Your task to perform on an android device: install app "Facebook Lite" Image 0: 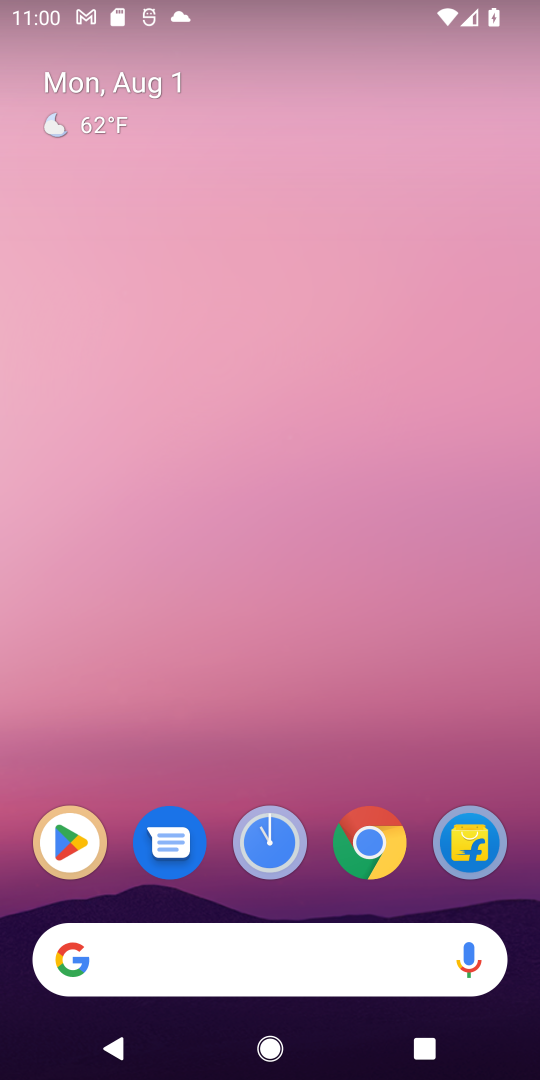
Step 0: click (64, 850)
Your task to perform on an android device: install app "Facebook Lite" Image 1: 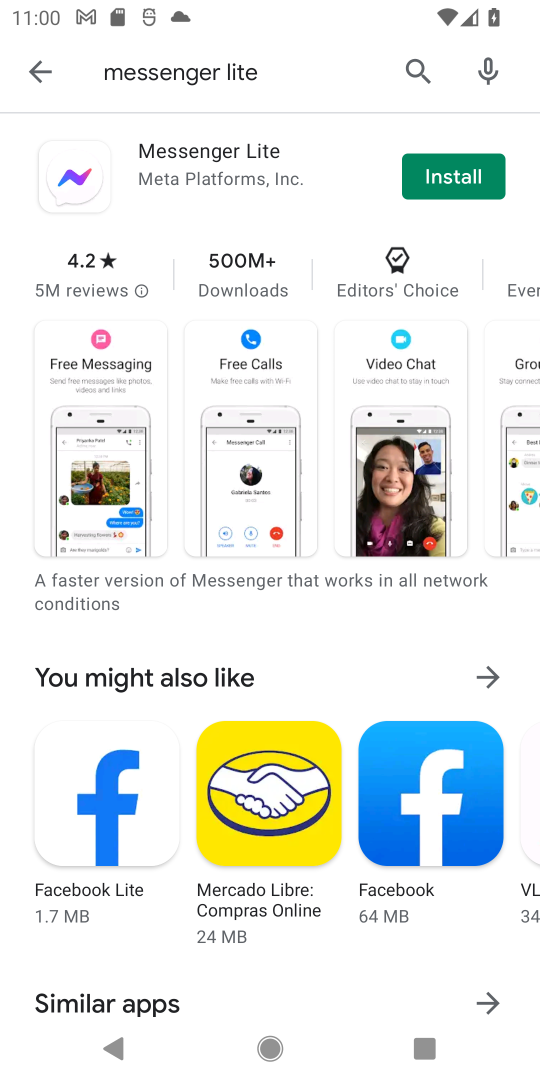
Step 1: click (415, 68)
Your task to perform on an android device: install app "Facebook Lite" Image 2: 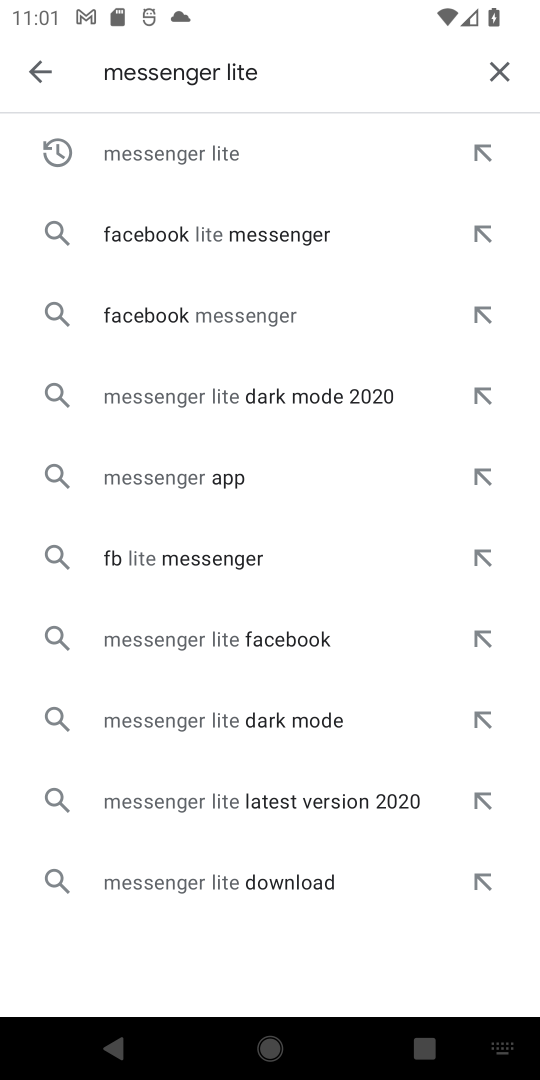
Step 2: click (234, 147)
Your task to perform on an android device: install app "Facebook Lite" Image 3: 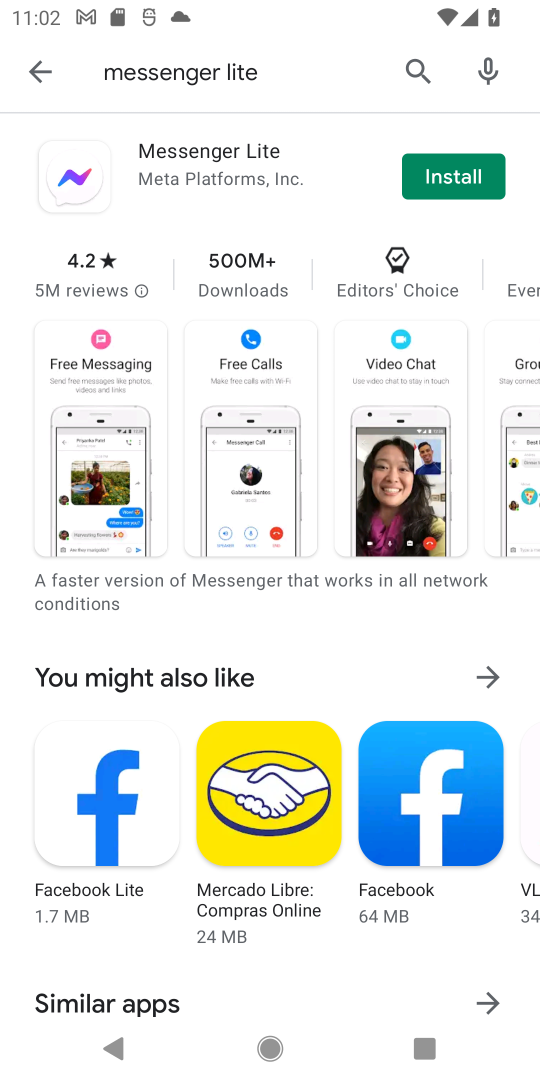
Step 3: click (452, 180)
Your task to perform on an android device: install app "Facebook Lite" Image 4: 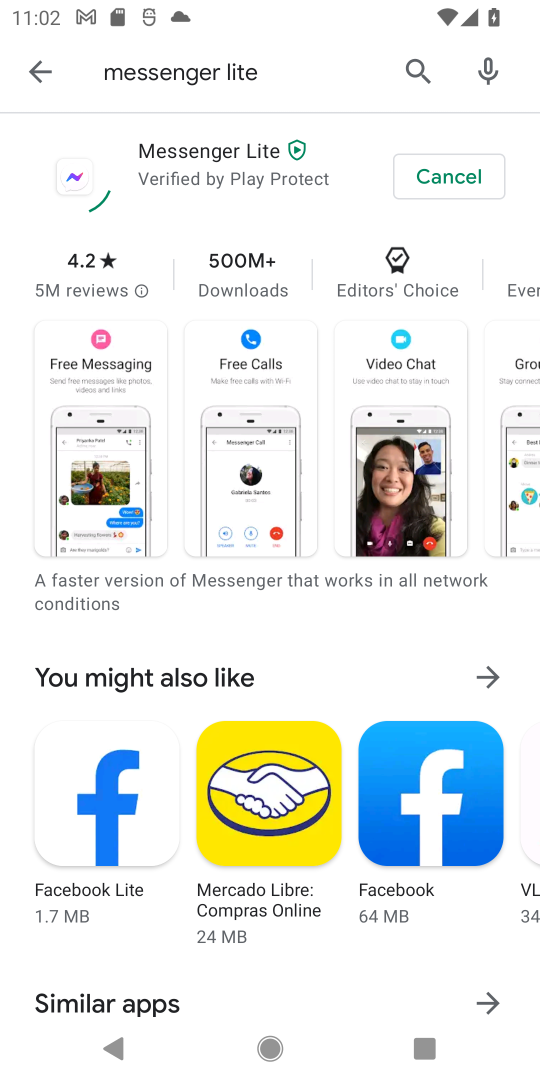
Step 4: click (457, 181)
Your task to perform on an android device: install app "Facebook Lite" Image 5: 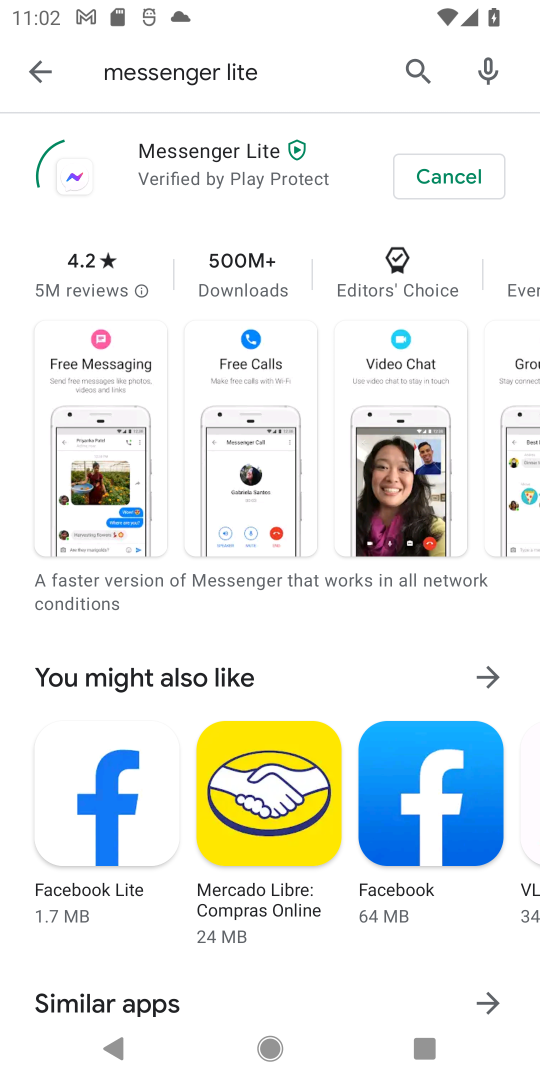
Step 5: click (414, 78)
Your task to perform on an android device: install app "Facebook Lite" Image 6: 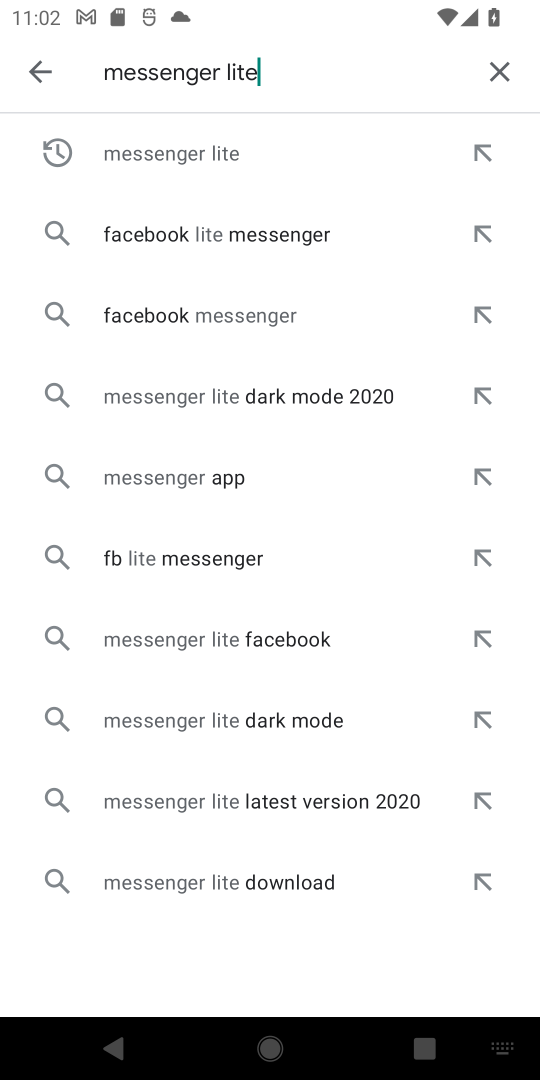
Step 6: click (513, 58)
Your task to perform on an android device: install app "Facebook Lite" Image 7: 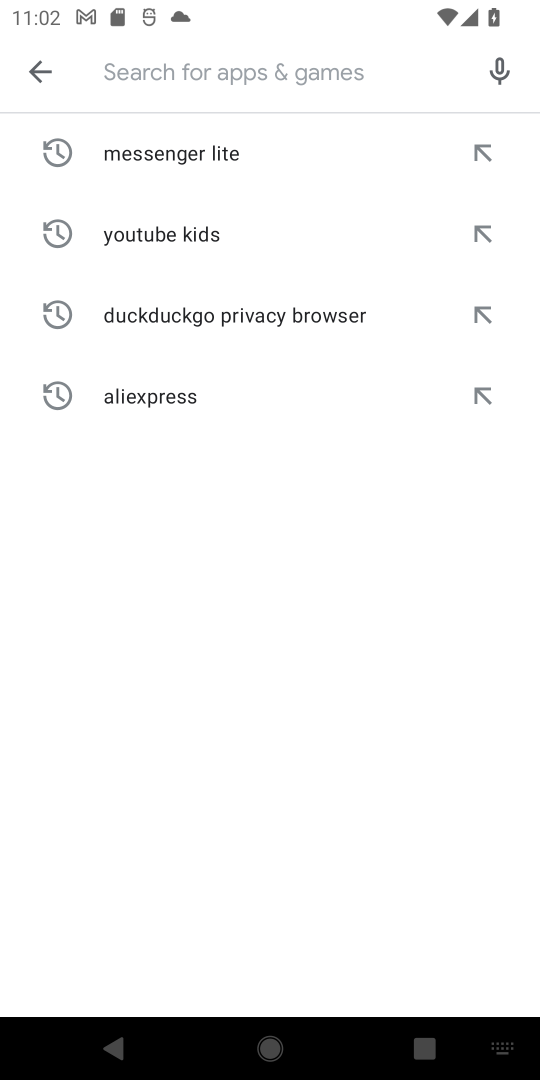
Step 7: click (132, 64)
Your task to perform on an android device: install app "Facebook Lite" Image 8: 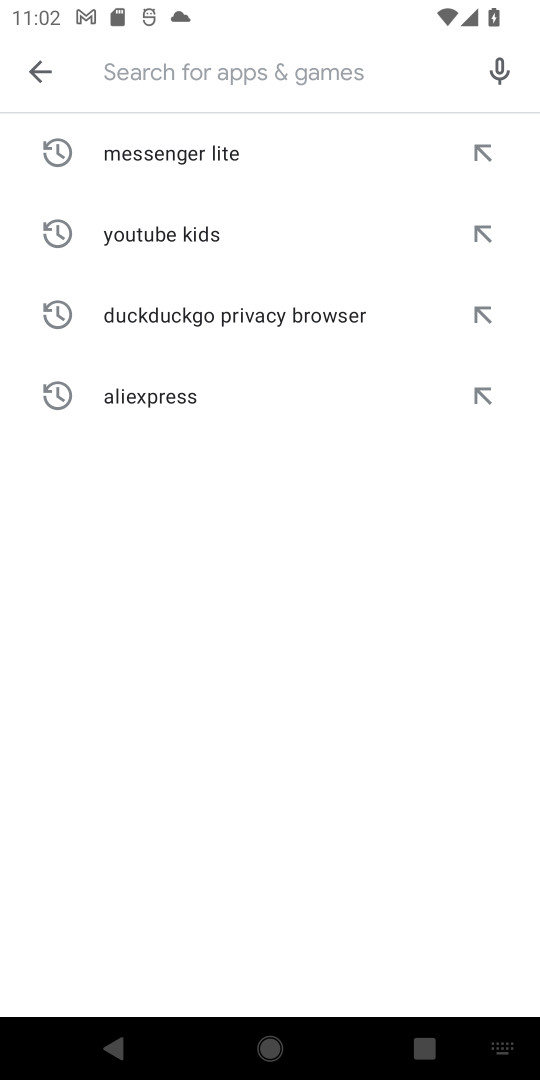
Step 8: type "Facebook Lite"
Your task to perform on an android device: install app "Facebook Lite" Image 9: 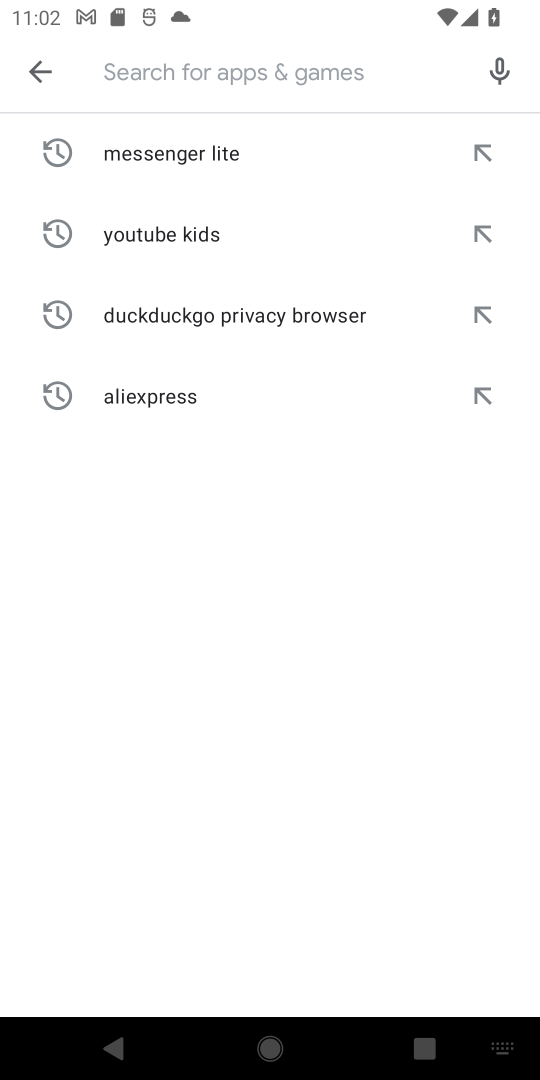
Step 9: click (359, 623)
Your task to perform on an android device: install app "Facebook Lite" Image 10: 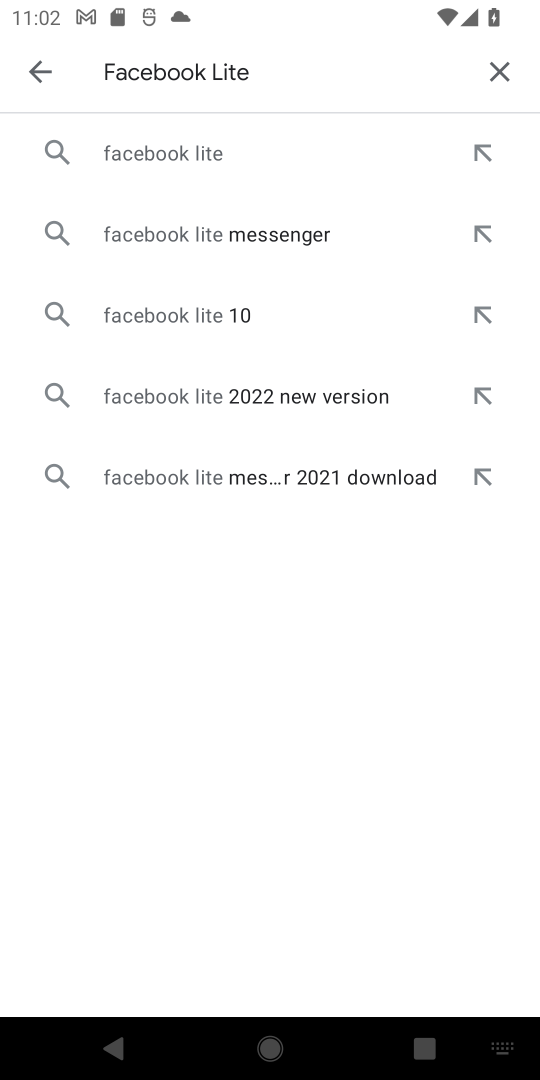
Step 10: click (175, 154)
Your task to perform on an android device: install app "Facebook Lite" Image 11: 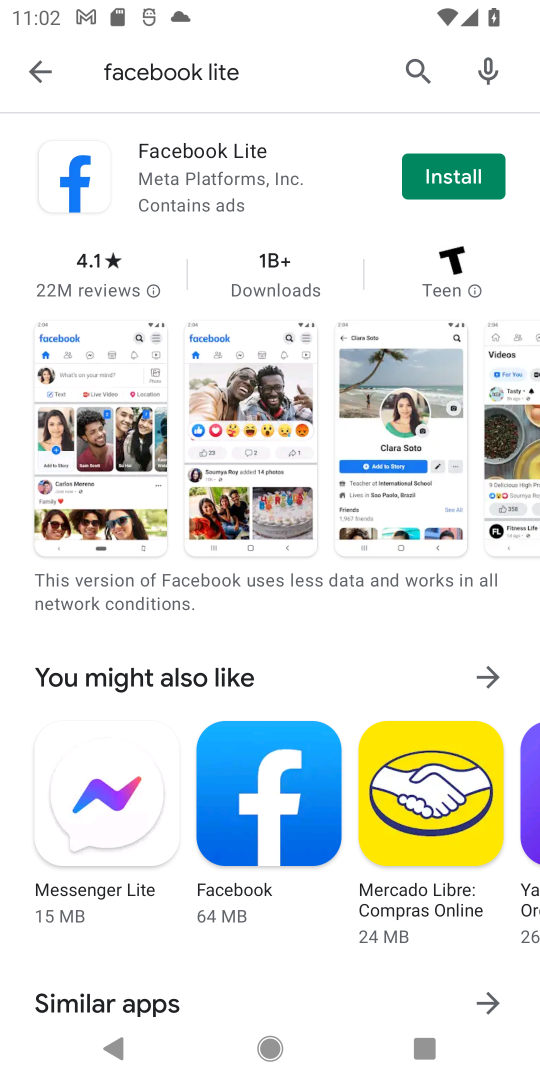
Step 11: click (442, 182)
Your task to perform on an android device: install app "Facebook Lite" Image 12: 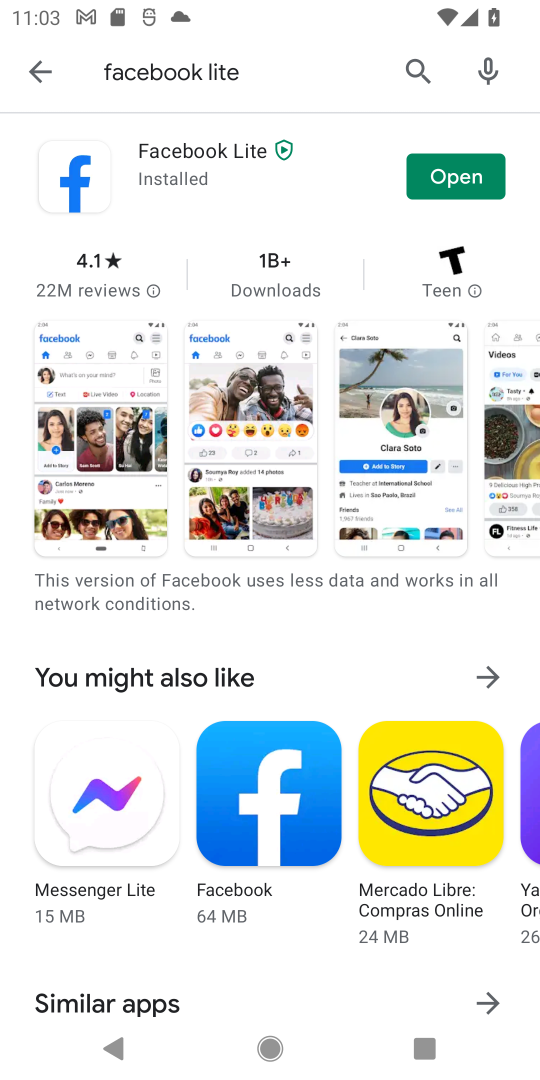
Step 12: task complete